Your task to perform on an android device: Open Wikipedia Image 0: 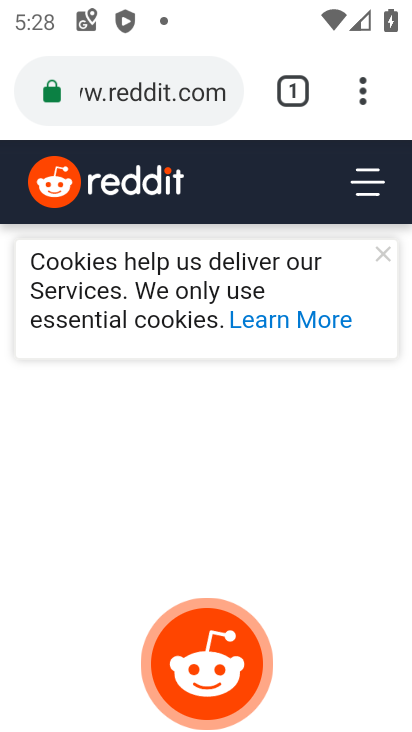
Step 0: press home button
Your task to perform on an android device: Open Wikipedia Image 1: 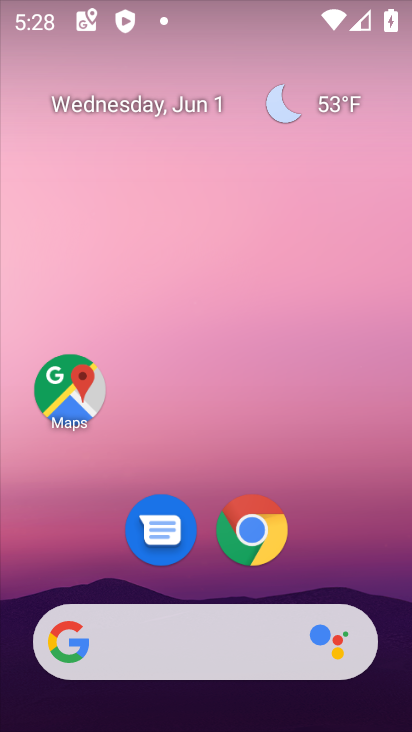
Step 1: click (260, 511)
Your task to perform on an android device: Open Wikipedia Image 2: 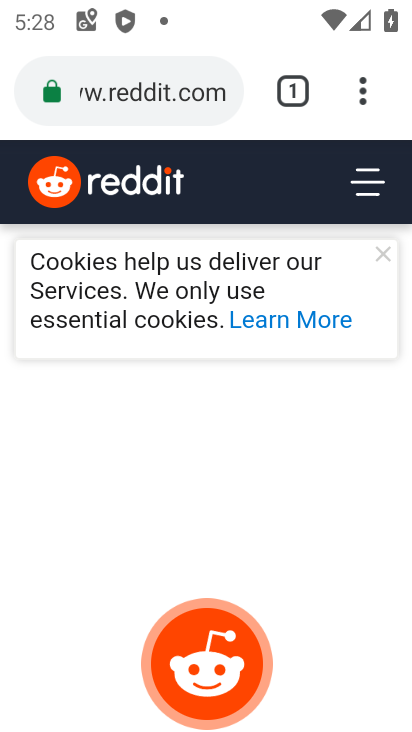
Step 2: task complete